Your task to perform on an android device: change text size in settings app Image 0: 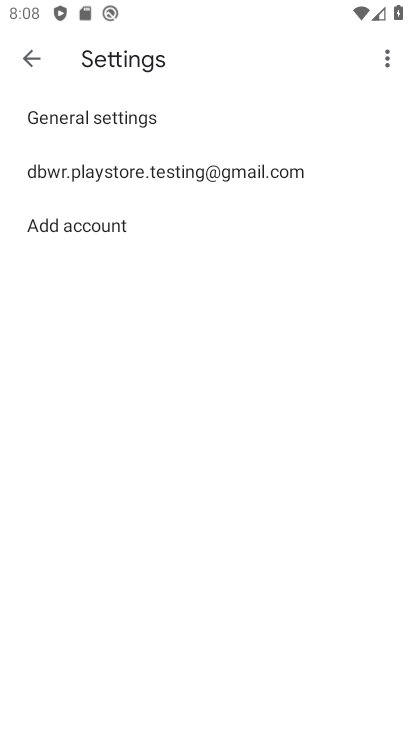
Step 0: press home button
Your task to perform on an android device: change text size in settings app Image 1: 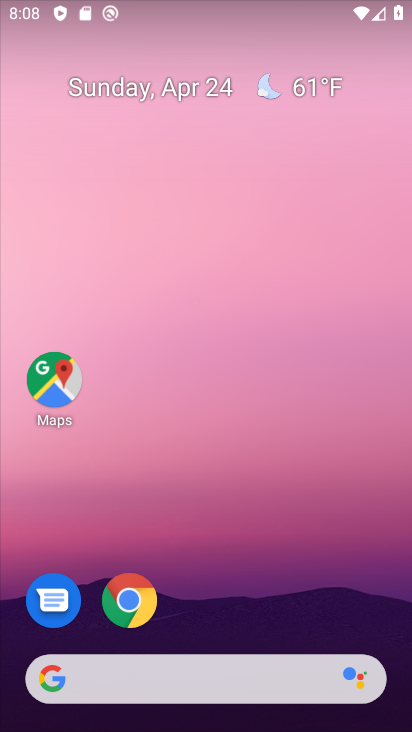
Step 1: drag from (226, 719) to (226, 210)
Your task to perform on an android device: change text size in settings app Image 2: 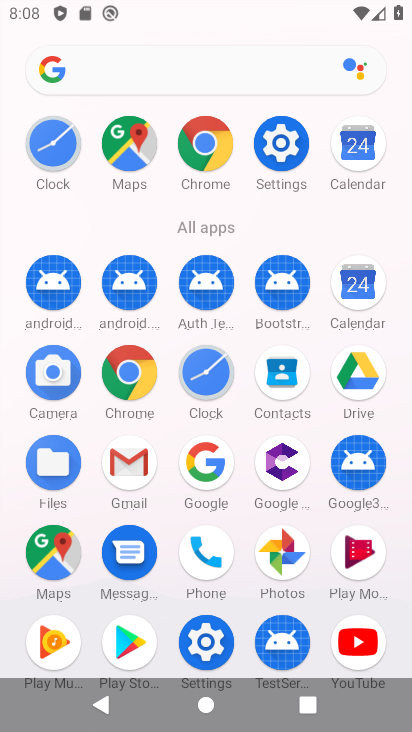
Step 2: click (280, 156)
Your task to perform on an android device: change text size in settings app Image 3: 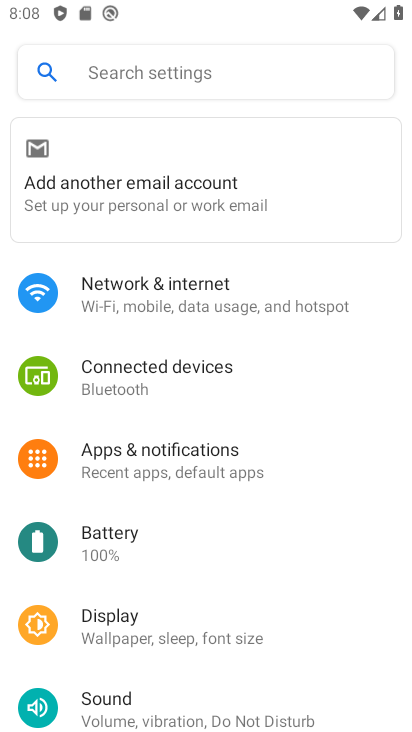
Step 3: drag from (208, 661) to (188, 343)
Your task to perform on an android device: change text size in settings app Image 4: 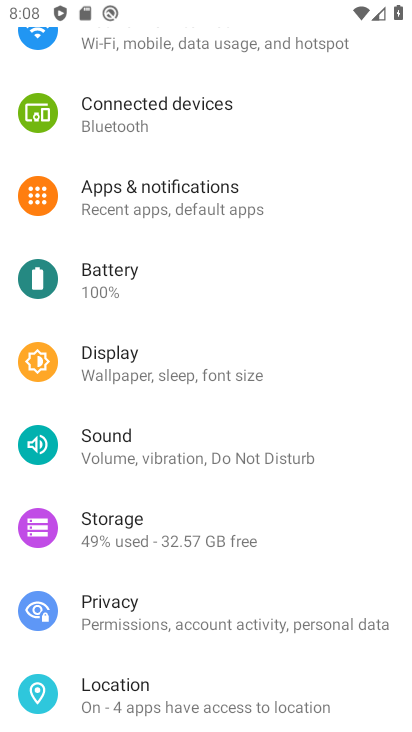
Step 4: click (151, 373)
Your task to perform on an android device: change text size in settings app Image 5: 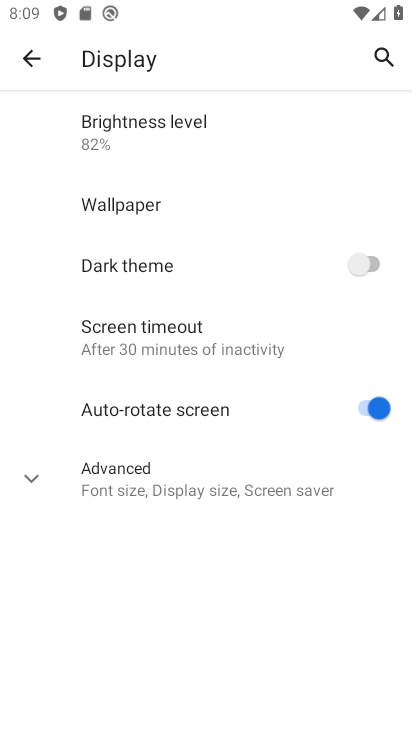
Step 5: click (173, 487)
Your task to perform on an android device: change text size in settings app Image 6: 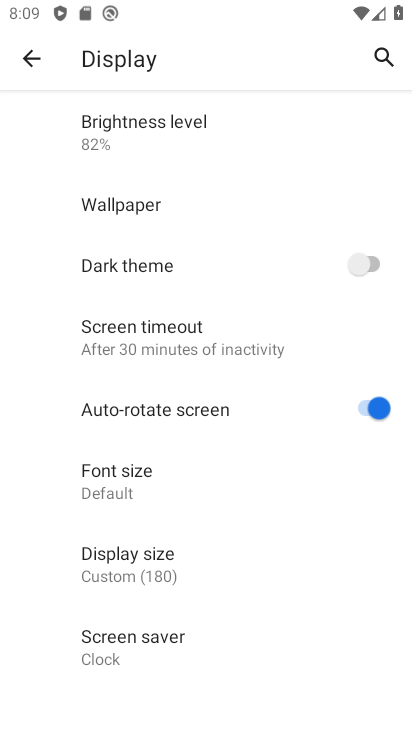
Step 6: click (106, 482)
Your task to perform on an android device: change text size in settings app Image 7: 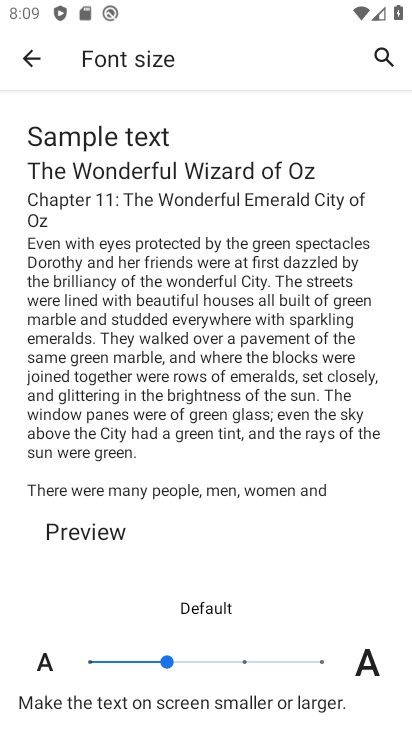
Step 7: click (245, 657)
Your task to perform on an android device: change text size in settings app Image 8: 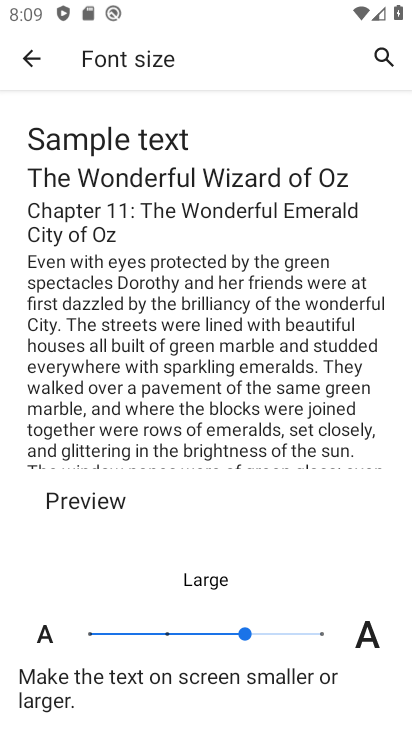
Step 8: task complete